Your task to perform on an android device: Open calendar and show me the third week of next month Image 0: 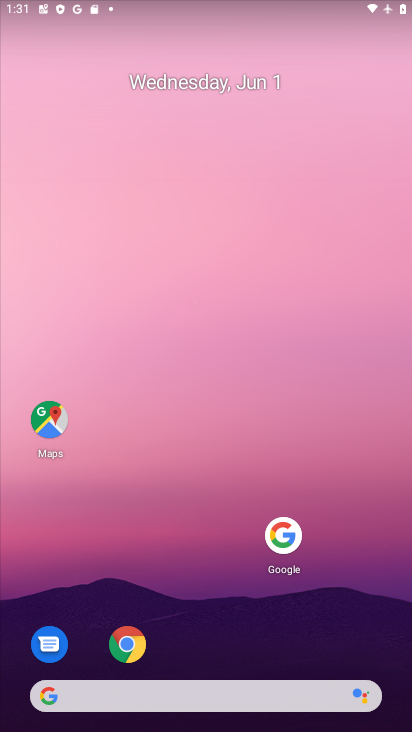
Step 0: press home button
Your task to perform on an android device: Open calendar and show me the third week of next month Image 1: 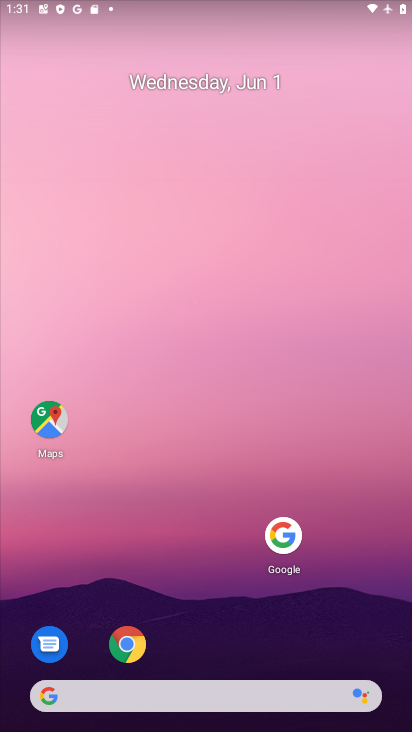
Step 1: drag from (220, 495) to (242, 250)
Your task to perform on an android device: Open calendar and show me the third week of next month Image 2: 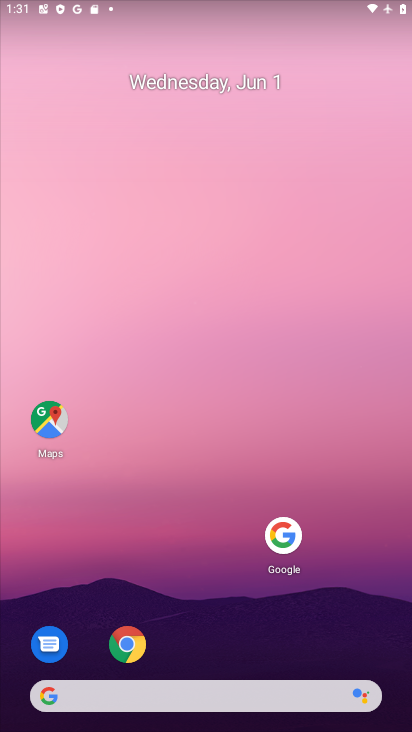
Step 2: drag from (214, 693) to (278, 134)
Your task to perform on an android device: Open calendar and show me the third week of next month Image 3: 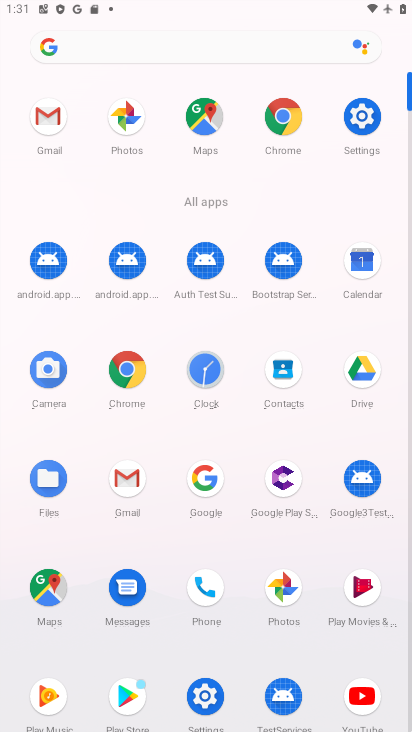
Step 3: click (357, 262)
Your task to perform on an android device: Open calendar and show me the third week of next month Image 4: 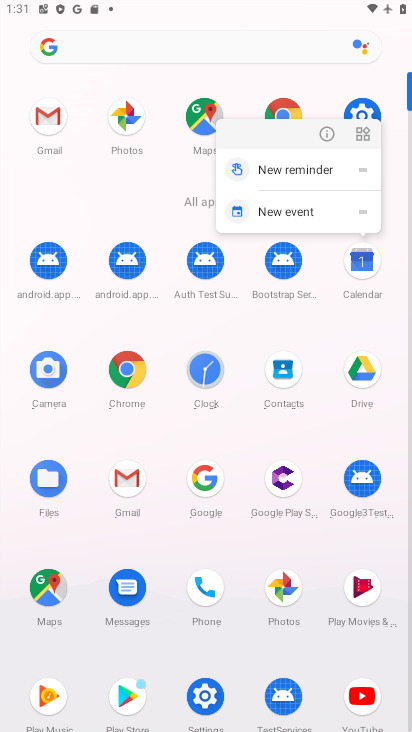
Step 4: click (357, 262)
Your task to perform on an android device: Open calendar and show me the third week of next month Image 5: 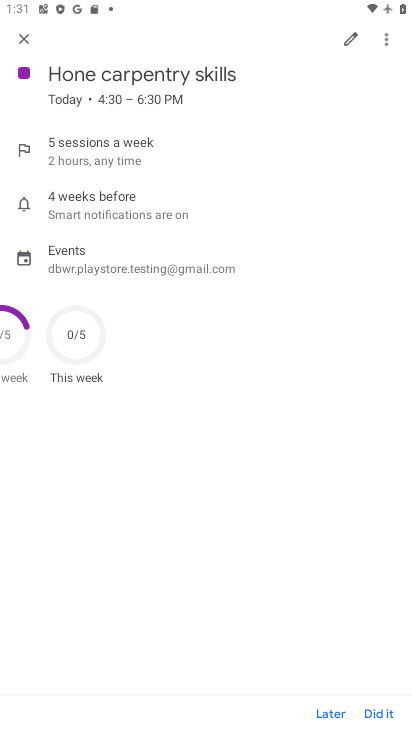
Step 5: click (21, 36)
Your task to perform on an android device: Open calendar and show me the third week of next month Image 6: 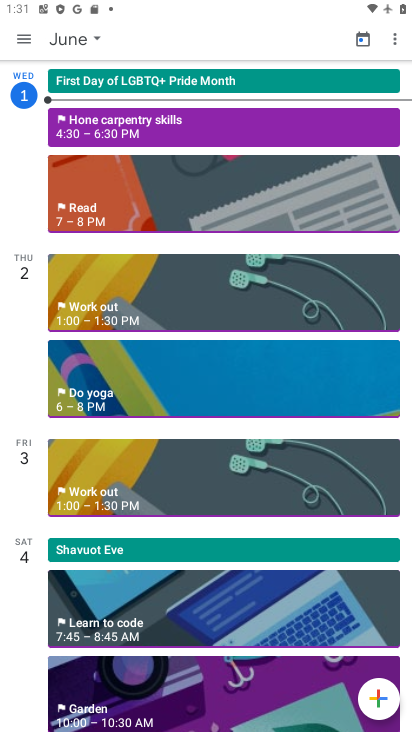
Step 6: click (76, 40)
Your task to perform on an android device: Open calendar and show me the third week of next month Image 7: 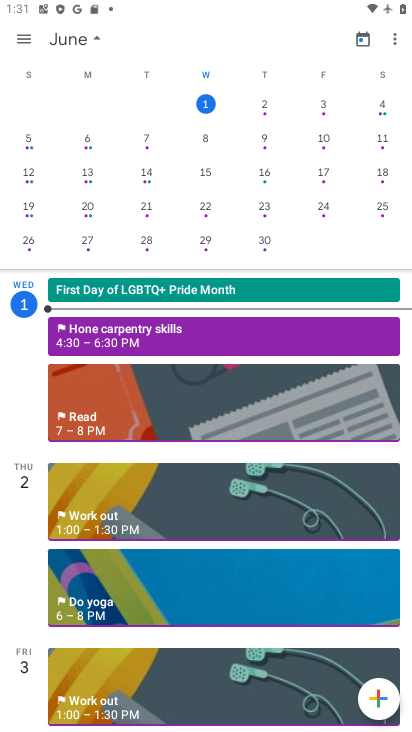
Step 7: drag from (352, 155) to (35, 216)
Your task to perform on an android device: Open calendar and show me the third week of next month Image 8: 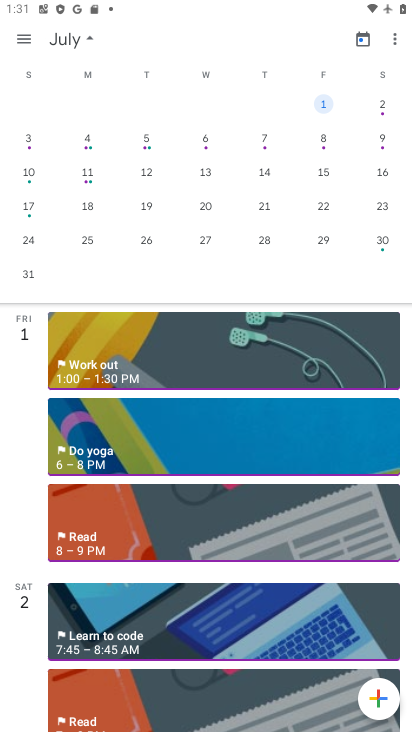
Step 8: click (29, 203)
Your task to perform on an android device: Open calendar and show me the third week of next month Image 9: 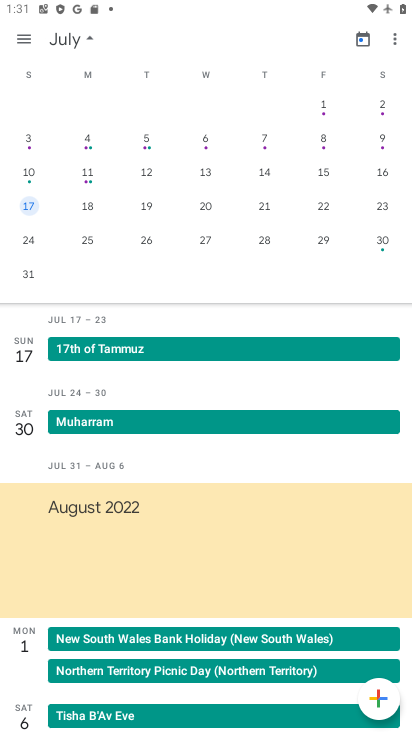
Step 9: click (23, 34)
Your task to perform on an android device: Open calendar and show me the third week of next month Image 10: 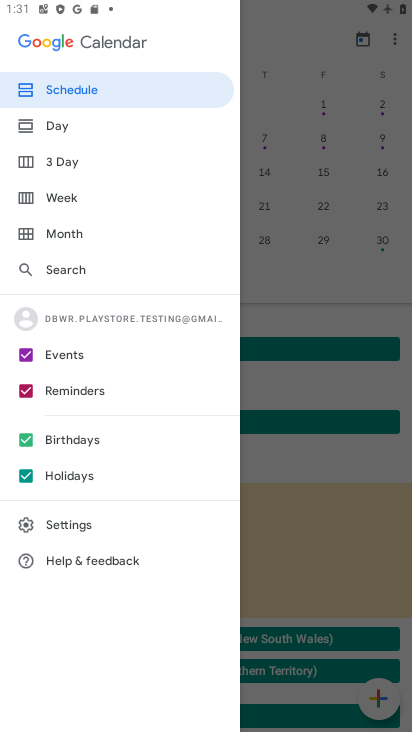
Step 10: click (61, 200)
Your task to perform on an android device: Open calendar and show me the third week of next month Image 11: 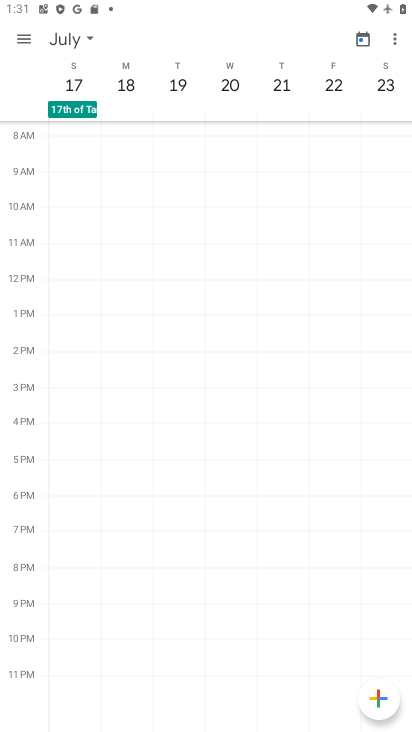
Step 11: task complete